Your task to perform on an android device: Play the last video I watched on Youtube Image 0: 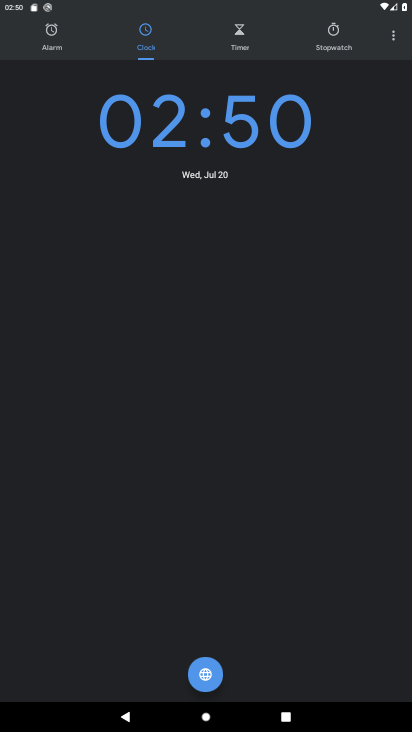
Step 0: press home button
Your task to perform on an android device: Play the last video I watched on Youtube Image 1: 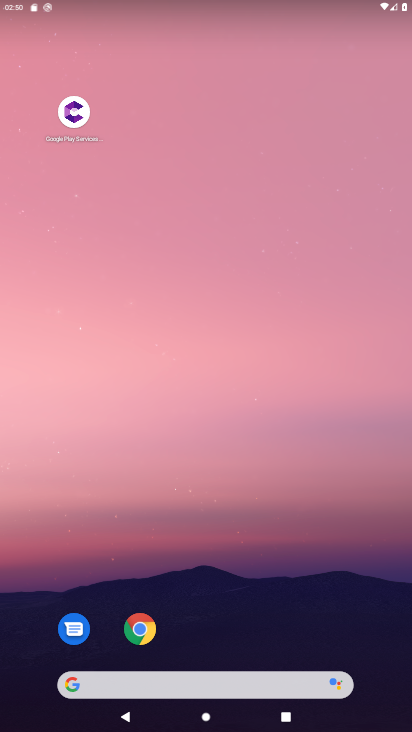
Step 1: drag from (286, 643) to (344, 209)
Your task to perform on an android device: Play the last video I watched on Youtube Image 2: 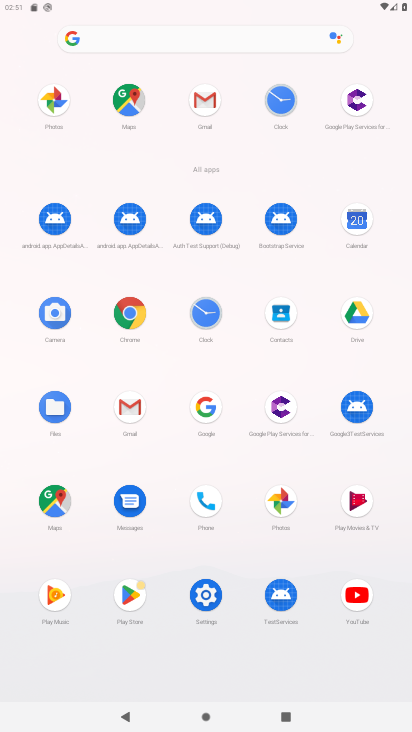
Step 2: click (360, 611)
Your task to perform on an android device: Play the last video I watched on Youtube Image 3: 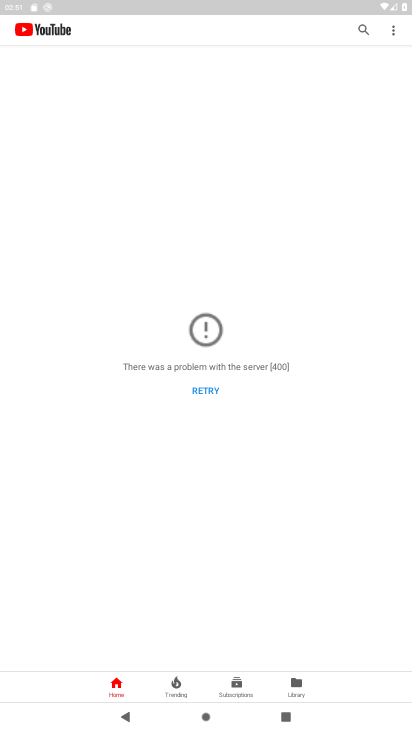
Step 3: click (296, 691)
Your task to perform on an android device: Play the last video I watched on Youtube Image 4: 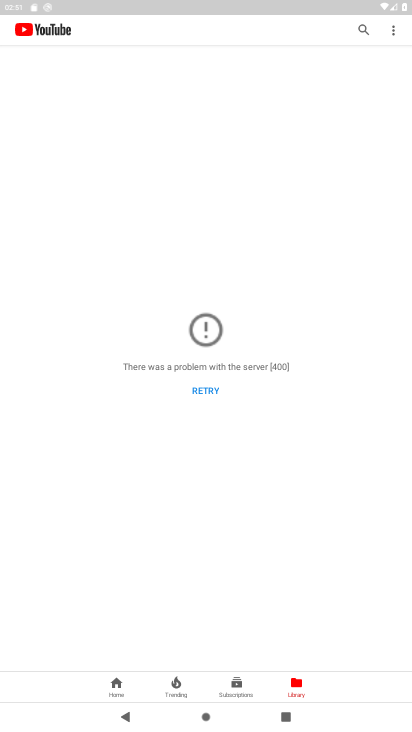
Step 4: task complete